Your task to perform on an android device: Go to calendar. Show me events next week Image 0: 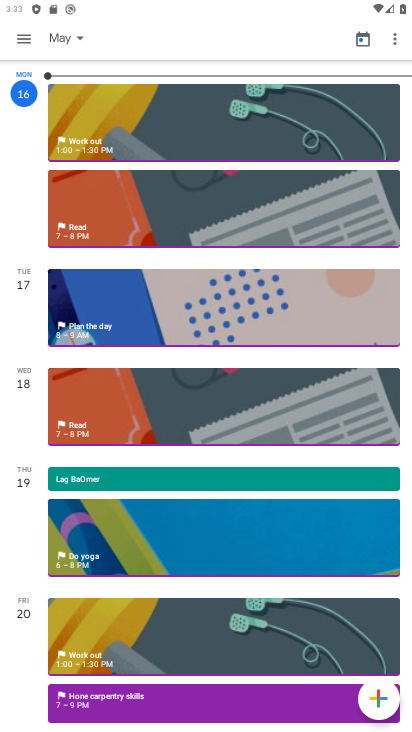
Step 0: click (19, 36)
Your task to perform on an android device: Go to calendar. Show me events next week Image 1: 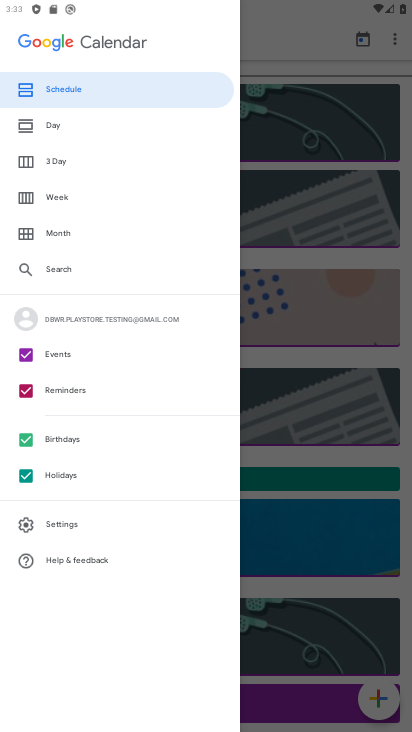
Step 1: click (84, 196)
Your task to perform on an android device: Go to calendar. Show me events next week Image 2: 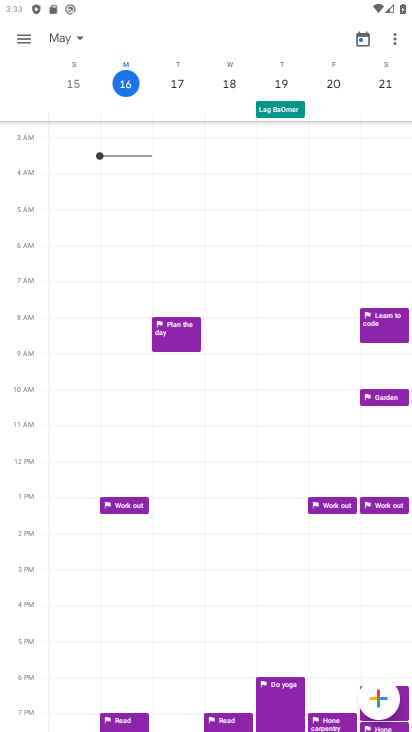
Step 2: click (79, 35)
Your task to perform on an android device: Go to calendar. Show me events next week Image 3: 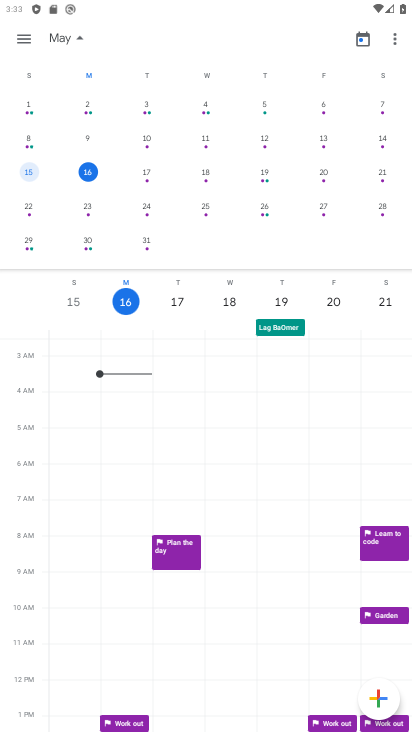
Step 3: drag from (353, 164) to (0, 252)
Your task to perform on an android device: Go to calendar. Show me events next week Image 4: 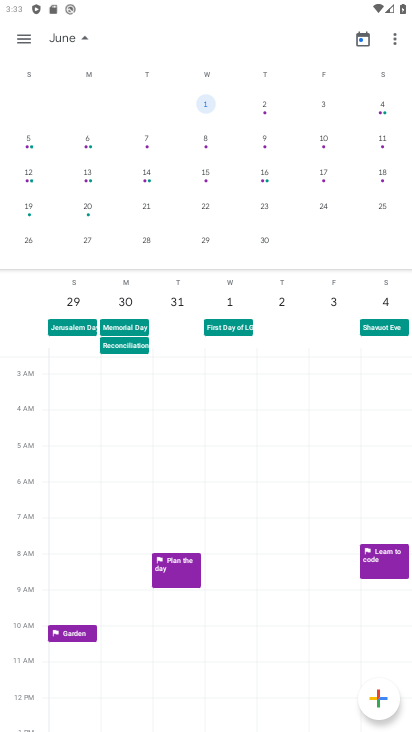
Step 4: drag from (68, 178) to (408, 173)
Your task to perform on an android device: Go to calendar. Show me events next week Image 5: 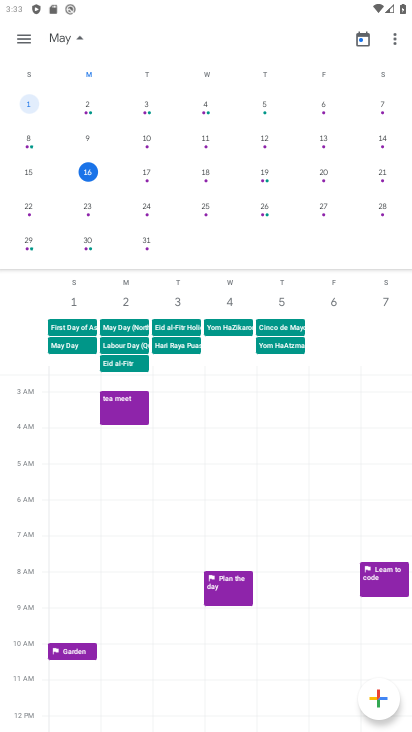
Step 5: click (27, 208)
Your task to perform on an android device: Go to calendar. Show me events next week Image 6: 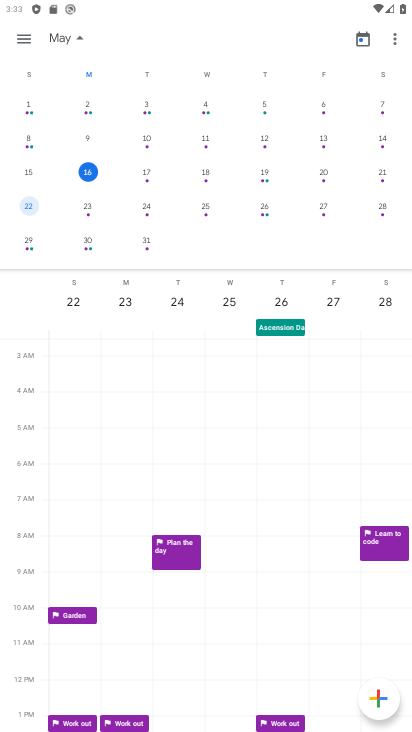
Step 6: task complete